Your task to perform on an android device: Open eBay Image 0: 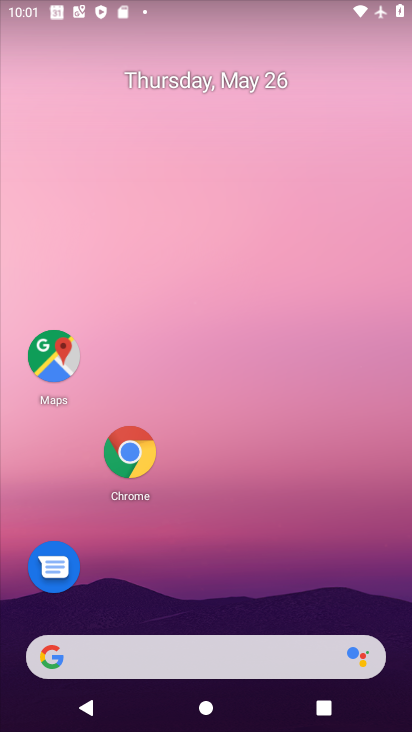
Step 0: click (139, 449)
Your task to perform on an android device: Open eBay Image 1: 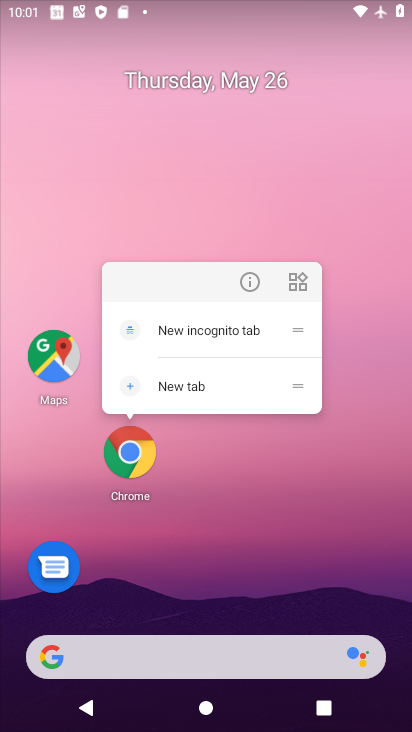
Step 1: click (133, 457)
Your task to perform on an android device: Open eBay Image 2: 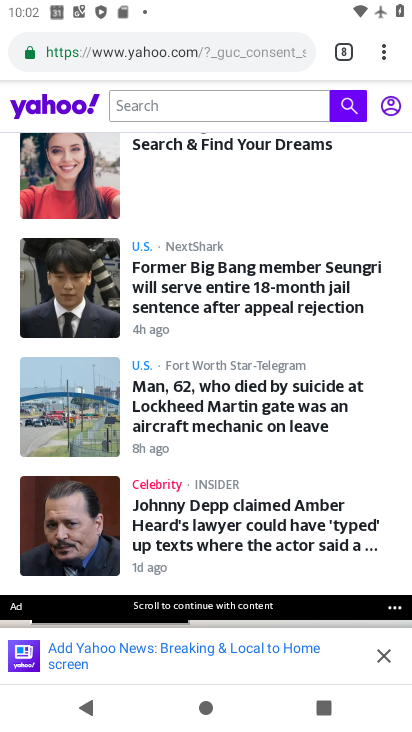
Step 2: drag from (386, 57) to (300, 100)
Your task to perform on an android device: Open eBay Image 3: 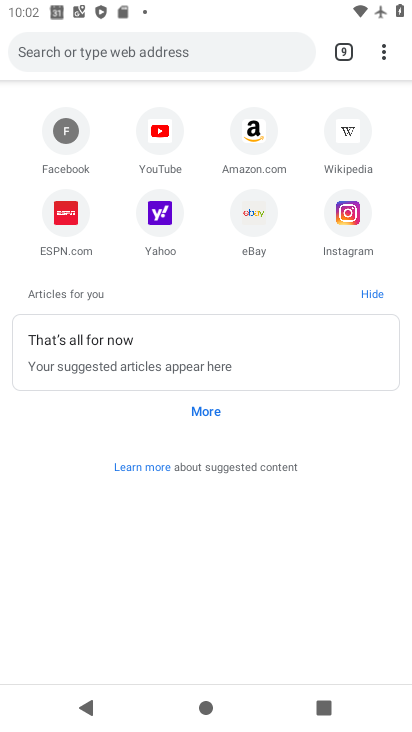
Step 3: click (249, 212)
Your task to perform on an android device: Open eBay Image 4: 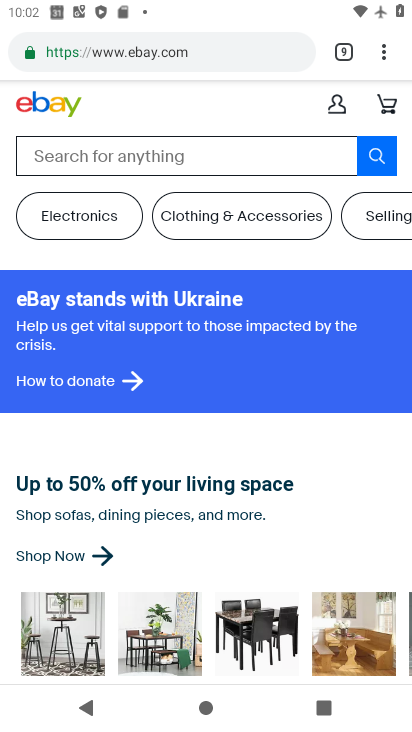
Step 4: task complete